Your task to perform on an android device: empty trash in google photos Image 0: 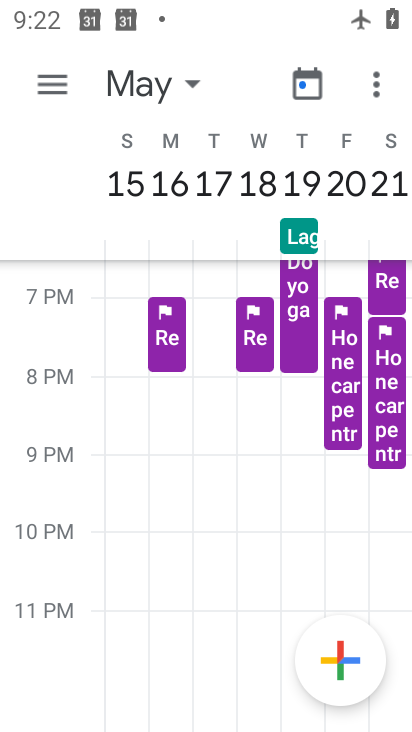
Step 0: press home button
Your task to perform on an android device: empty trash in google photos Image 1: 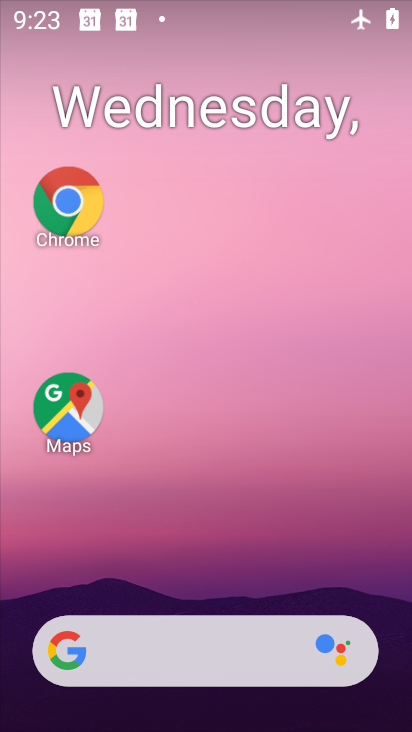
Step 1: drag from (224, 598) to (124, 0)
Your task to perform on an android device: empty trash in google photos Image 2: 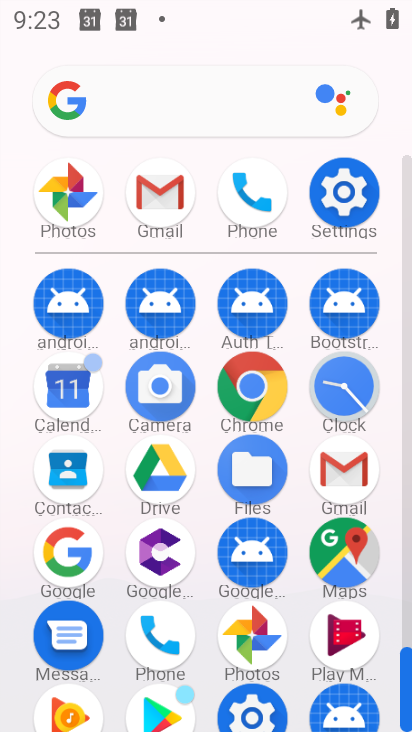
Step 2: click (266, 632)
Your task to perform on an android device: empty trash in google photos Image 3: 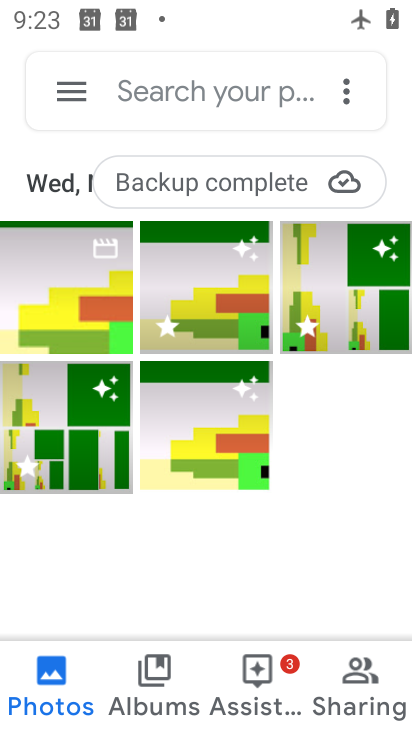
Step 3: click (82, 86)
Your task to perform on an android device: empty trash in google photos Image 4: 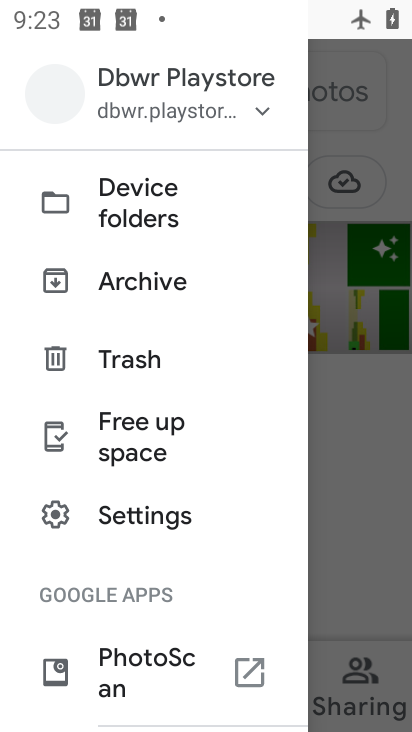
Step 4: click (114, 345)
Your task to perform on an android device: empty trash in google photos Image 5: 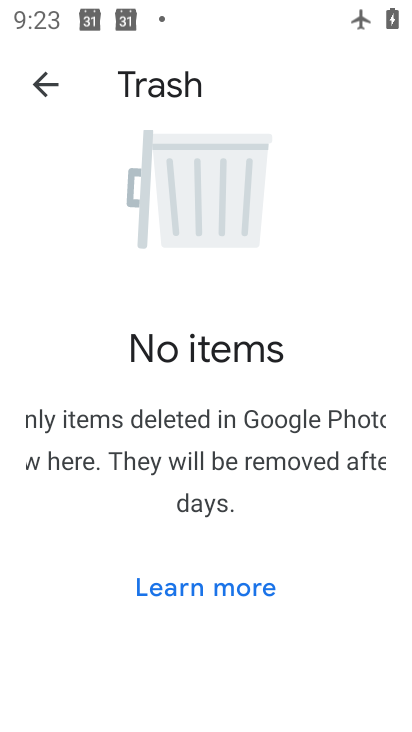
Step 5: task complete